Your task to perform on an android device: Go to battery settings Image 0: 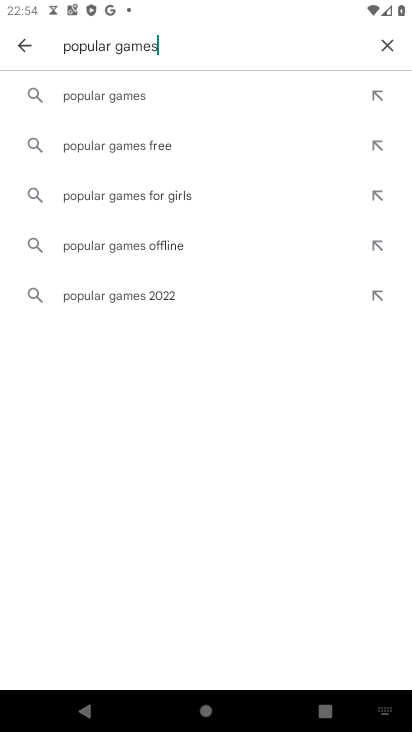
Step 0: press home button
Your task to perform on an android device: Go to battery settings Image 1: 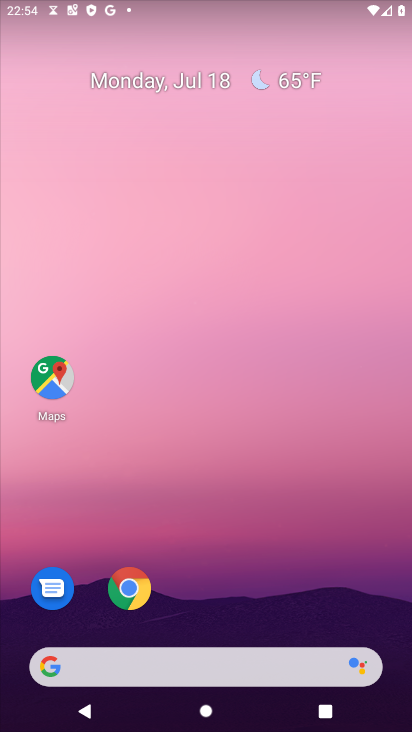
Step 1: drag from (209, 676) to (277, 226)
Your task to perform on an android device: Go to battery settings Image 2: 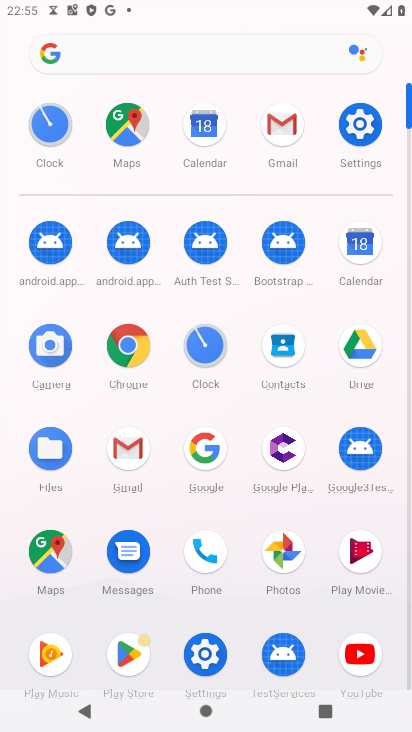
Step 2: click (360, 125)
Your task to perform on an android device: Go to battery settings Image 3: 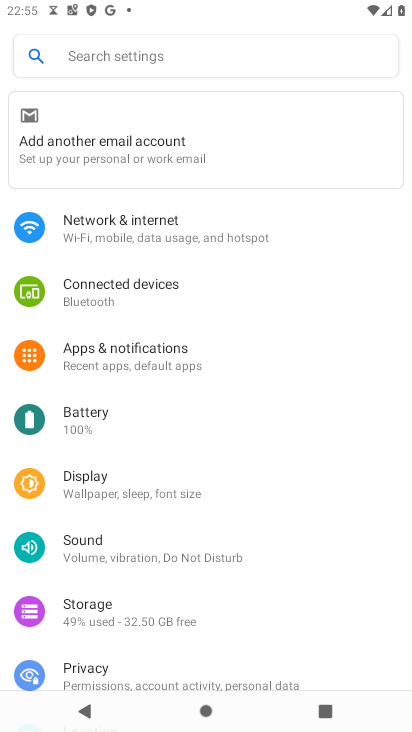
Step 3: click (96, 410)
Your task to perform on an android device: Go to battery settings Image 4: 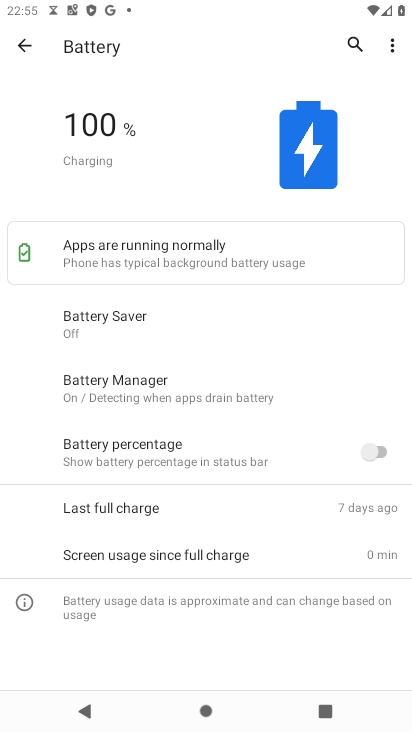
Step 4: task complete